Your task to perform on an android device: Open sound settings Image 0: 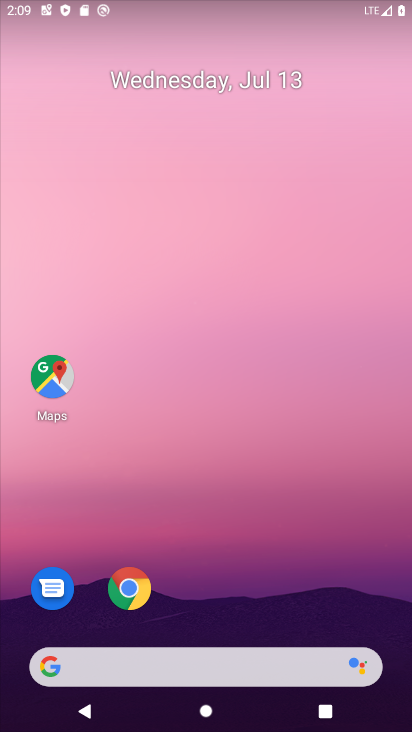
Step 0: drag from (361, 536) to (343, 105)
Your task to perform on an android device: Open sound settings Image 1: 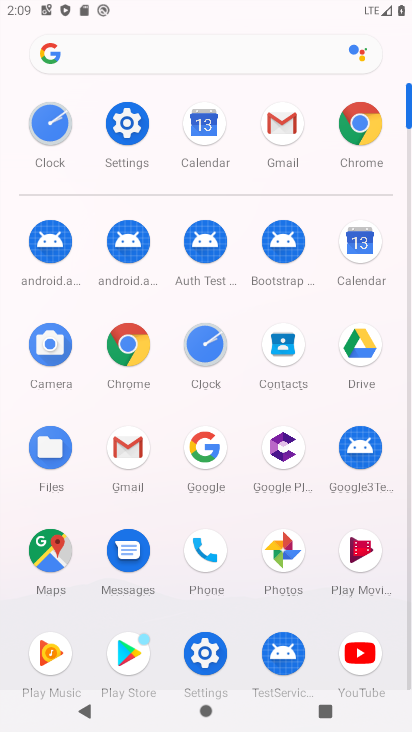
Step 1: click (207, 667)
Your task to perform on an android device: Open sound settings Image 2: 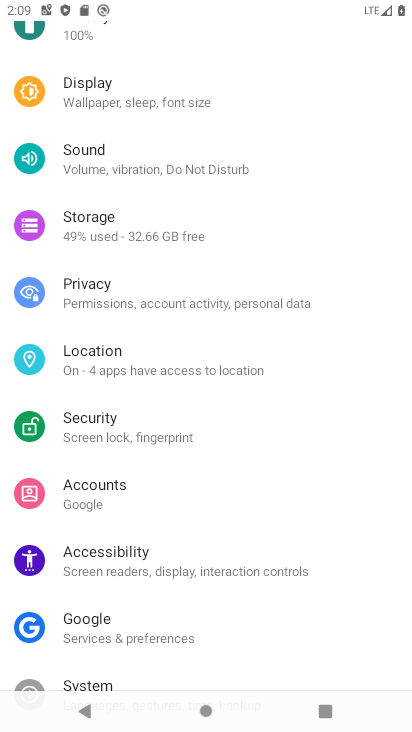
Step 2: drag from (239, 611) to (226, 228)
Your task to perform on an android device: Open sound settings Image 3: 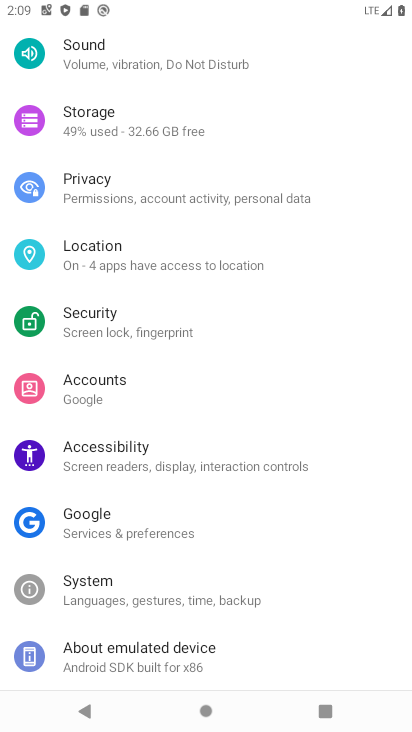
Step 3: click (97, 54)
Your task to perform on an android device: Open sound settings Image 4: 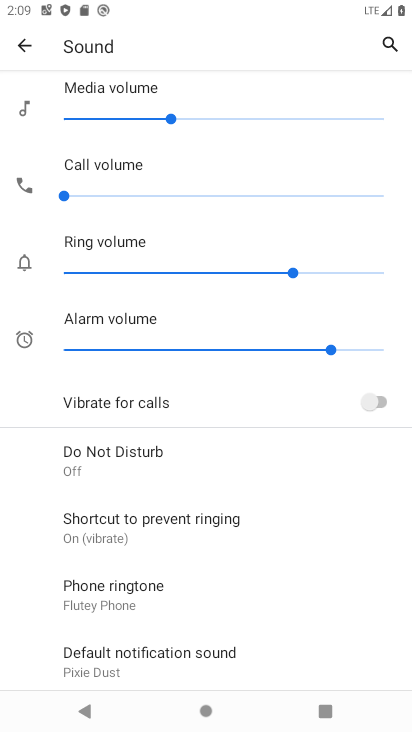
Step 4: task complete